Your task to perform on an android device: Clear the shopping cart on newegg. Add "logitech g502" to the cart on newegg, then select checkout. Image 0: 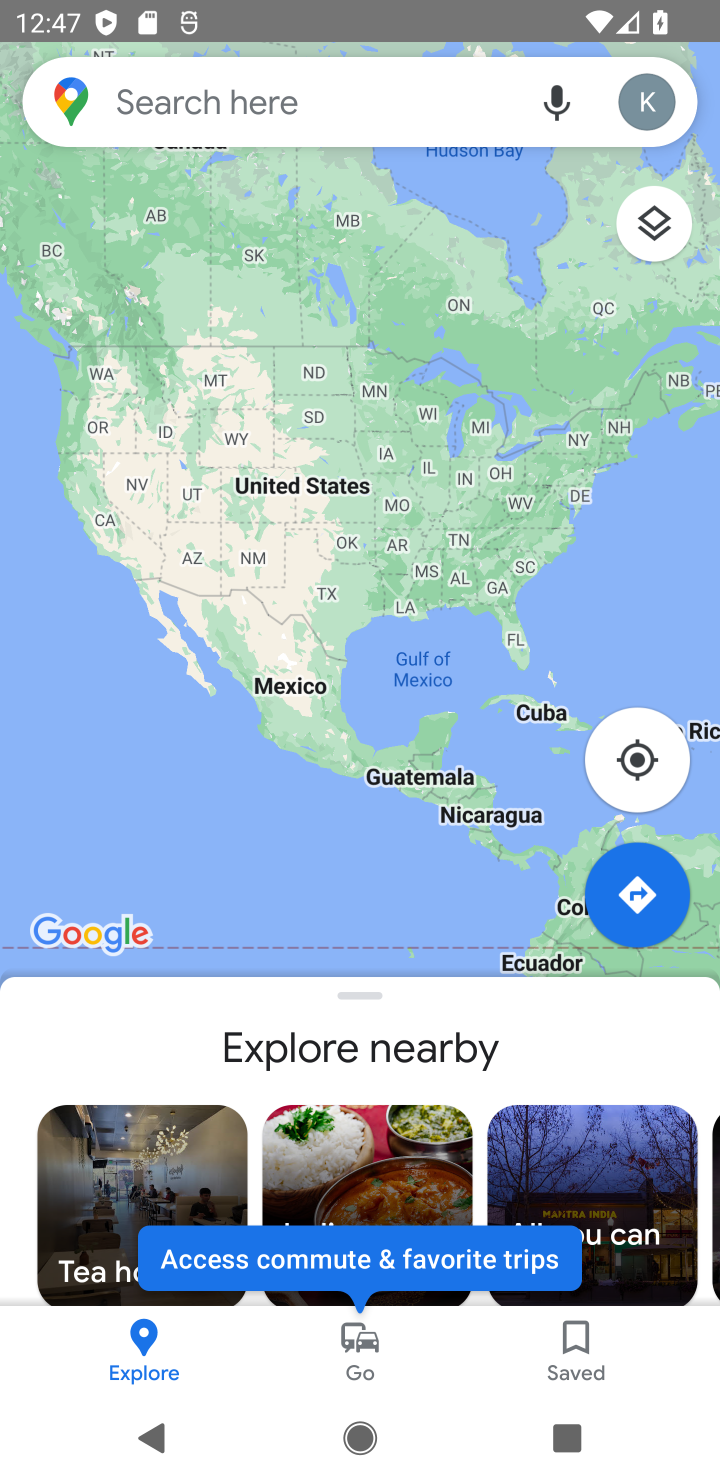
Step 0: press home button
Your task to perform on an android device: Clear the shopping cart on newegg. Add "logitech g502" to the cart on newegg, then select checkout. Image 1: 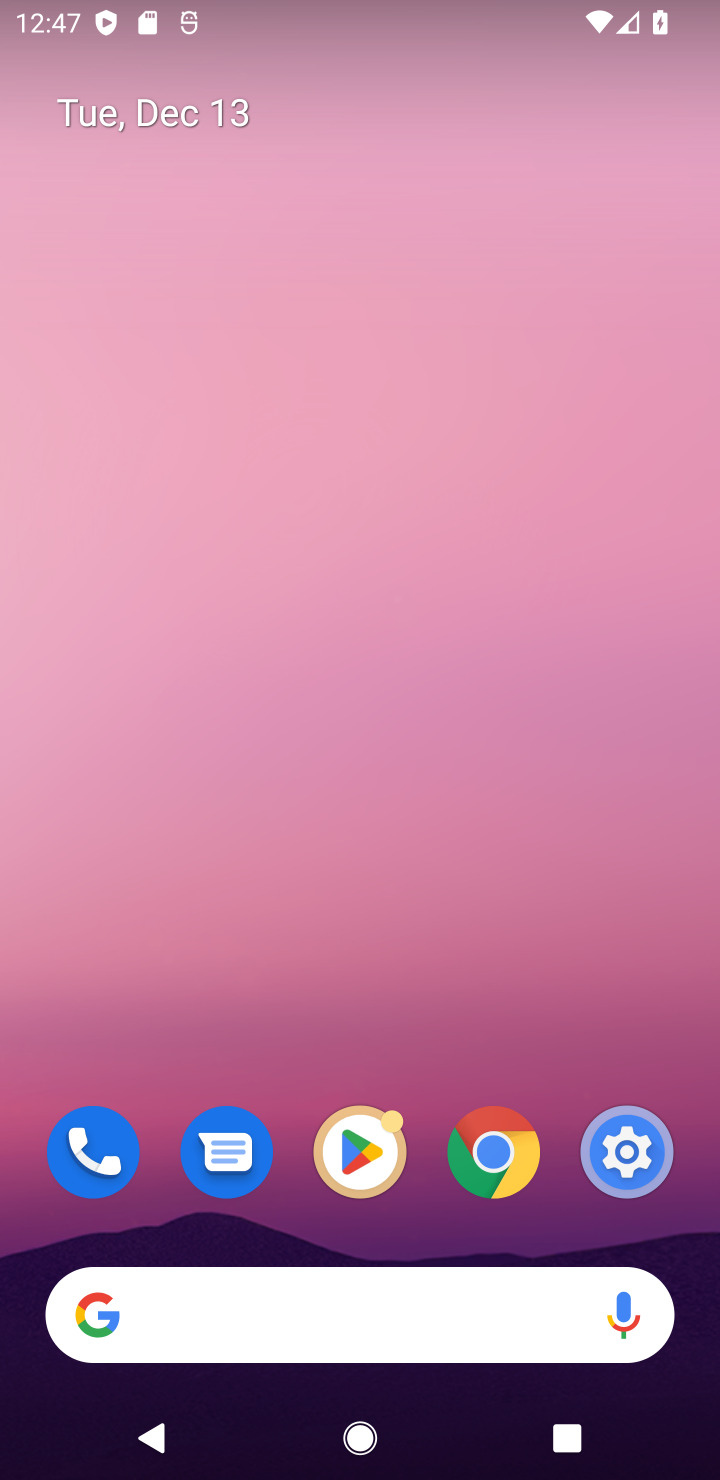
Step 1: drag from (314, 1210) to (314, 395)
Your task to perform on an android device: Clear the shopping cart on newegg. Add "logitech g502" to the cart on newegg, then select checkout. Image 2: 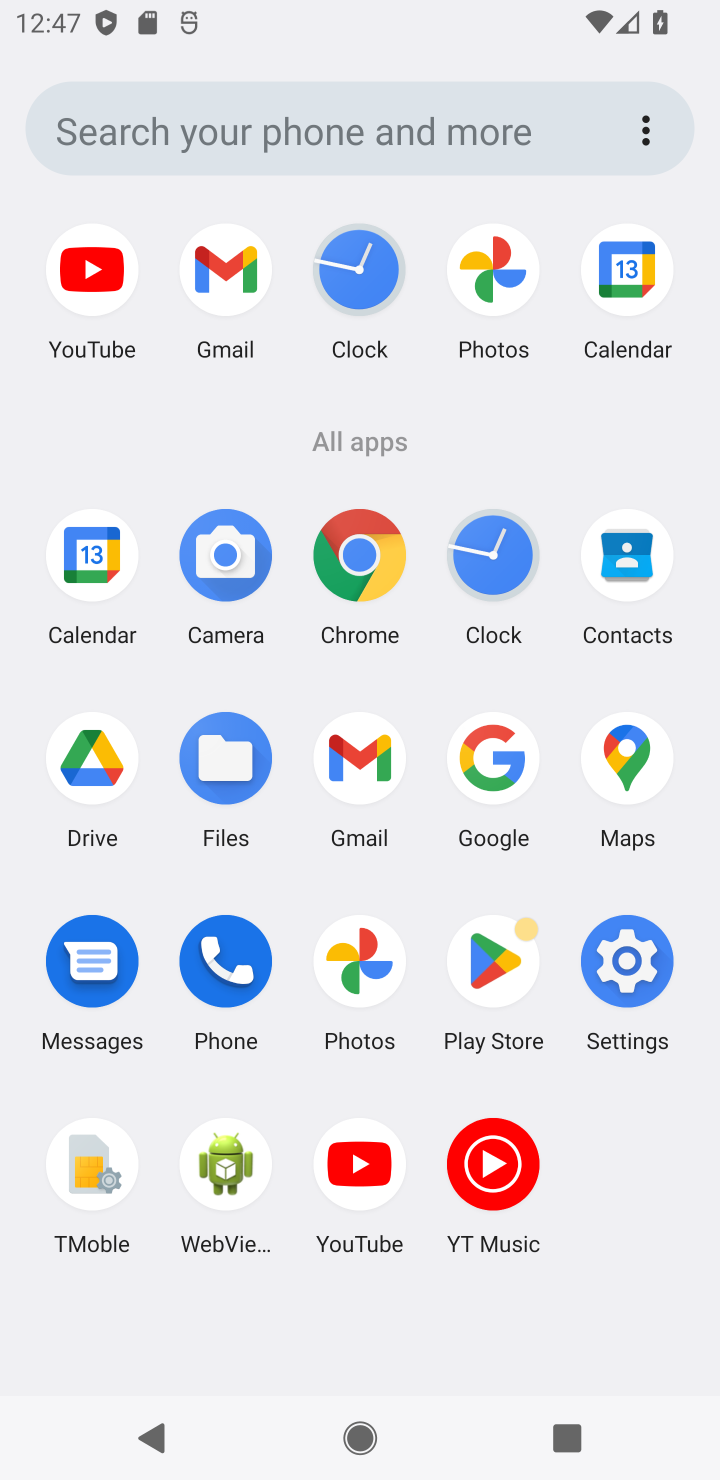
Step 2: click (513, 764)
Your task to perform on an android device: Clear the shopping cart on newegg. Add "logitech g502" to the cart on newegg, then select checkout. Image 3: 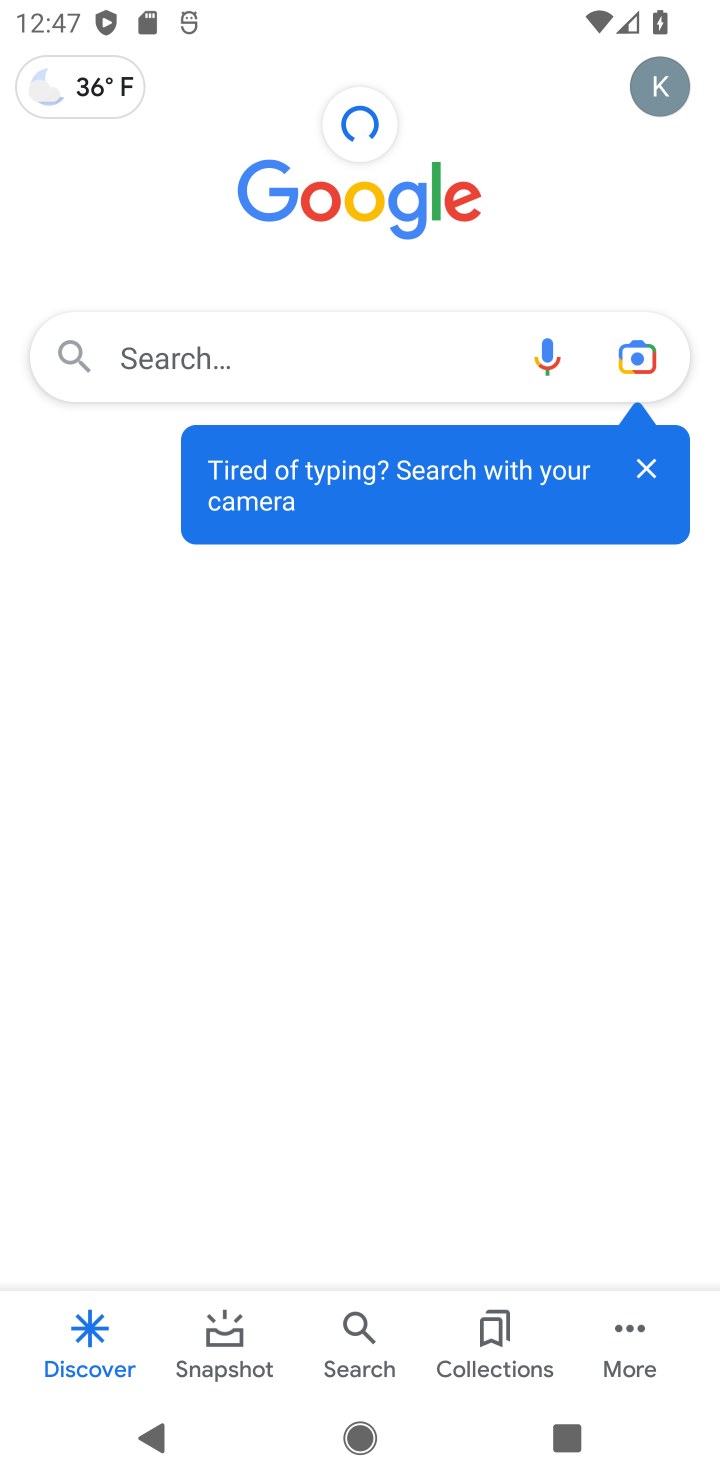
Step 3: click (142, 377)
Your task to perform on an android device: Clear the shopping cart on newegg. Add "logitech g502" to the cart on newegg, then select checkout. Image 4: 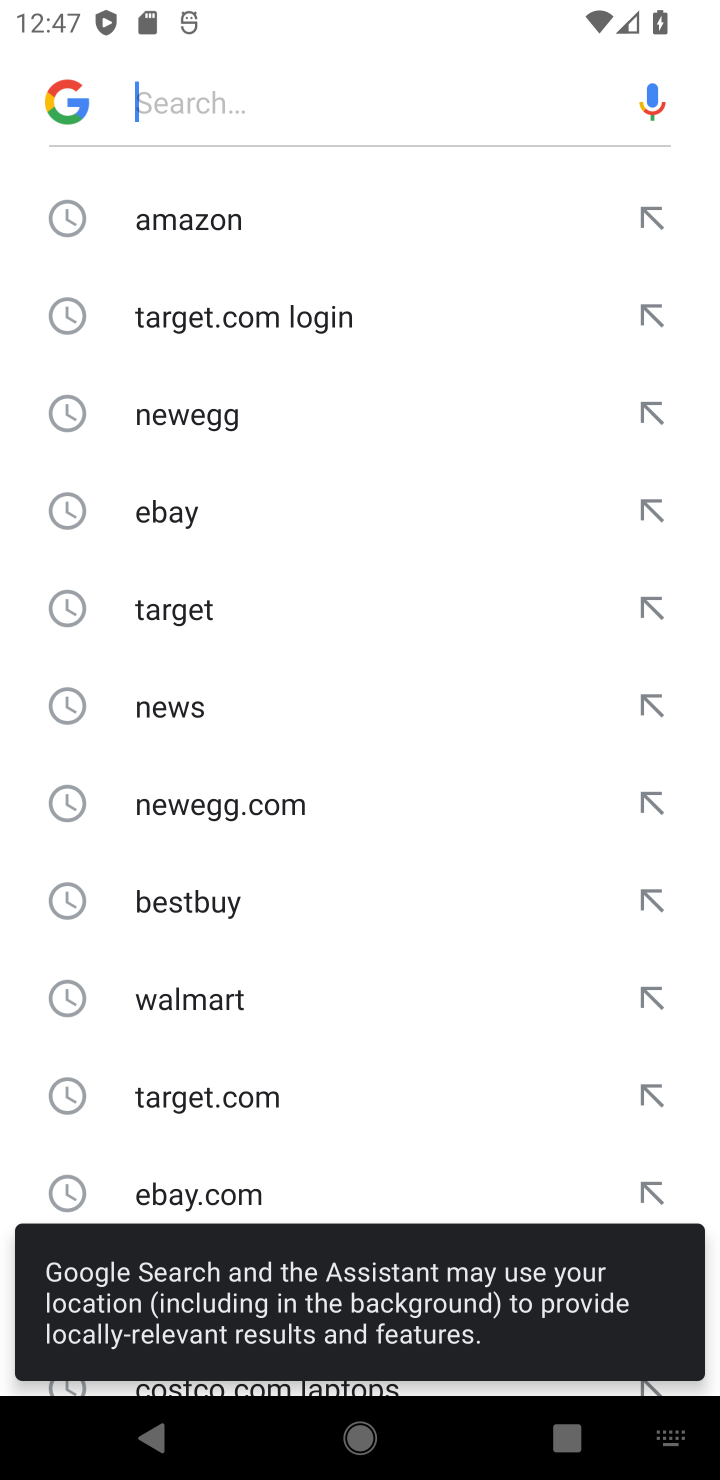
Step 4: click (192, 415)
Your task to perform on an android device: Clear the shopping cart on newegg. Add "logitech g502" to the cart on newegg, then select checkout. Image 5: 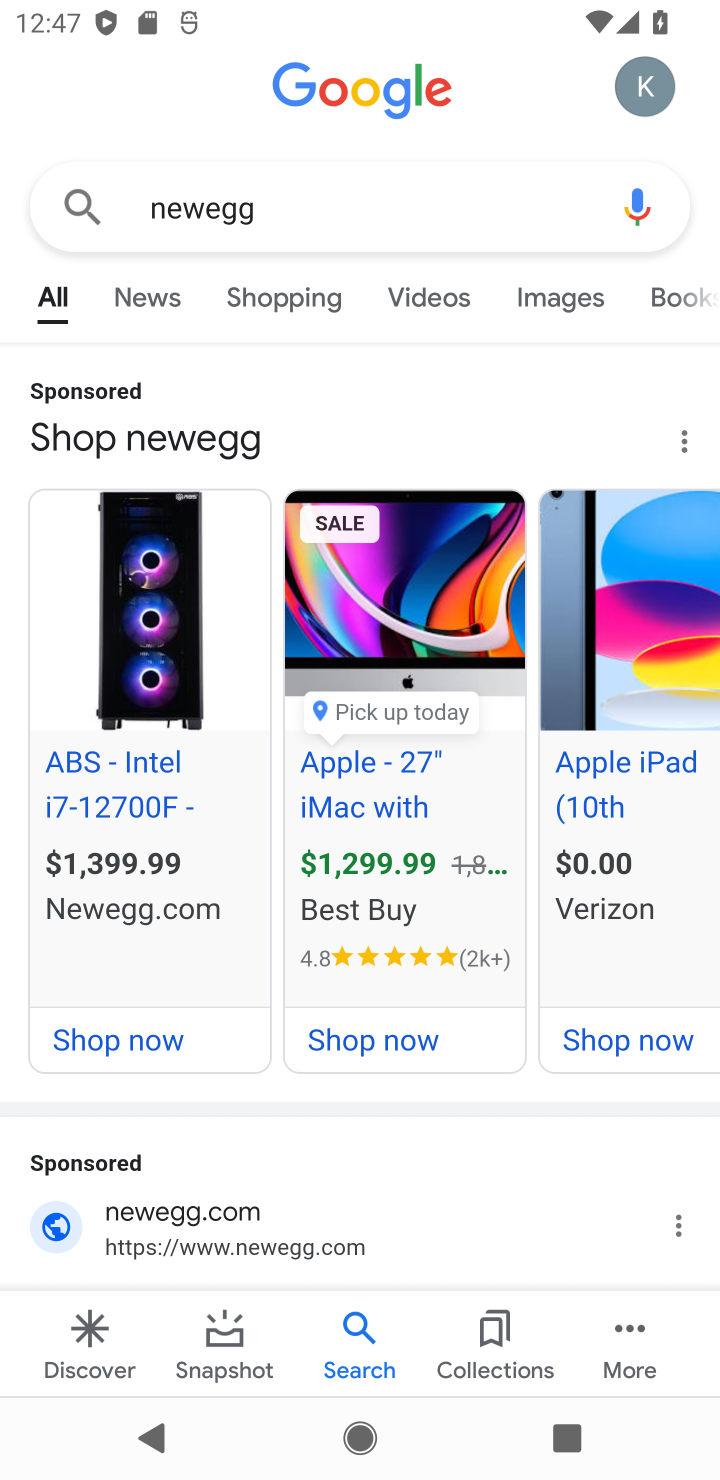
Step 5: drag from (249, 1166) to (244, 354)
Your task to perform on an android device: Clear the shopping cart on newegg. Add "logitech g502" to the cart on newegg, then select checkout. Image 6: 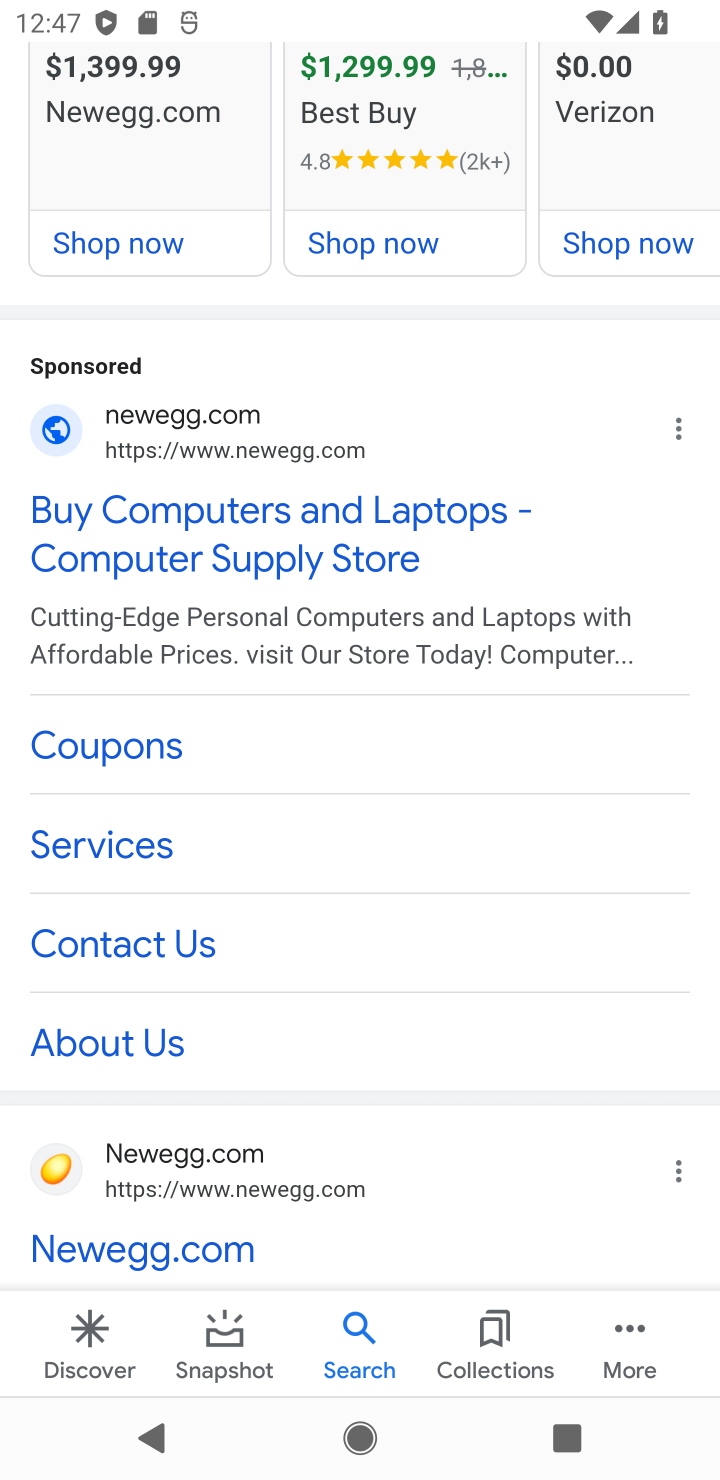
Step 6: click (167, 527)
Your task to perform on an android device: Clear the shopping cart on newegg. Add "logitech g502" to the cart on newegg, then select checkout. Image 7: 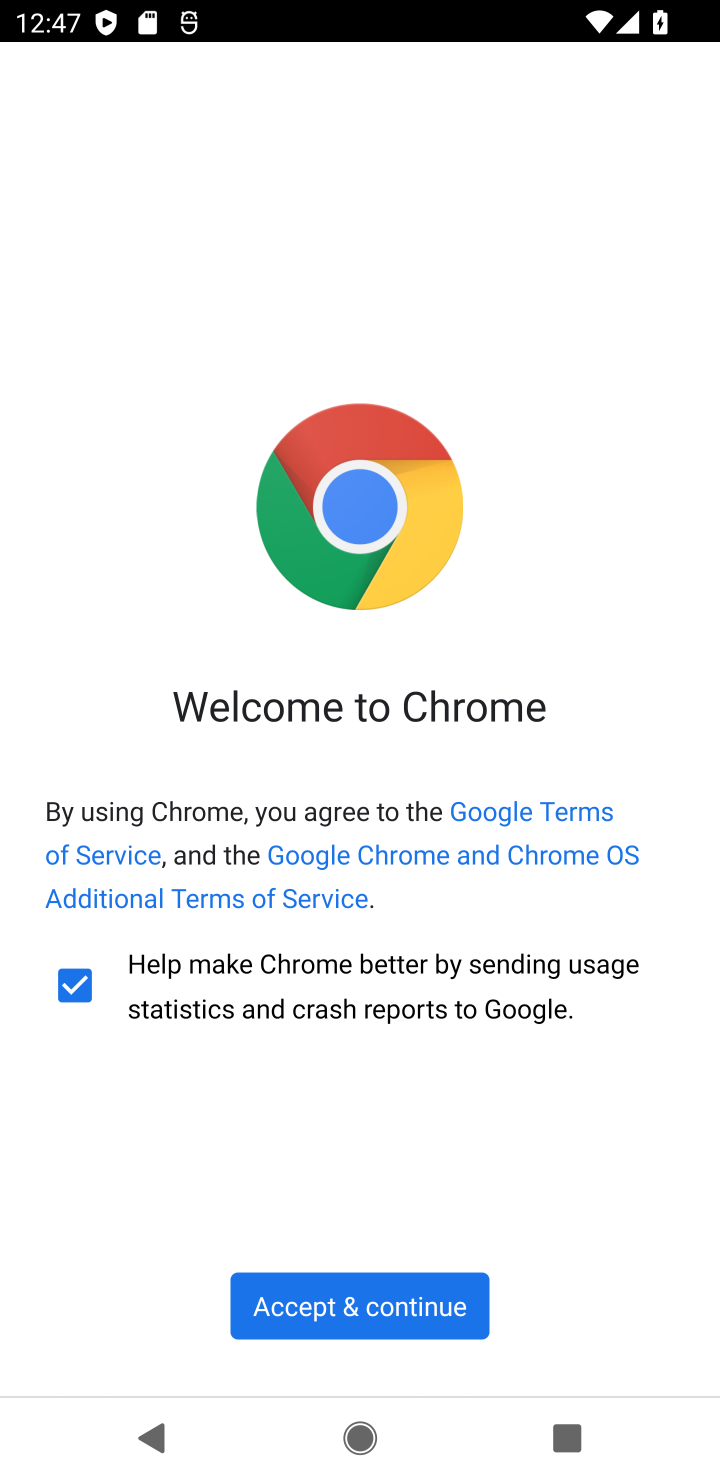
Step 7: click (299, 1319)
Your task to perform on an android device: Clear the shopping cart on newegg. Add "logitech g502" to the cart on newegg, then select checkout. Image 8: 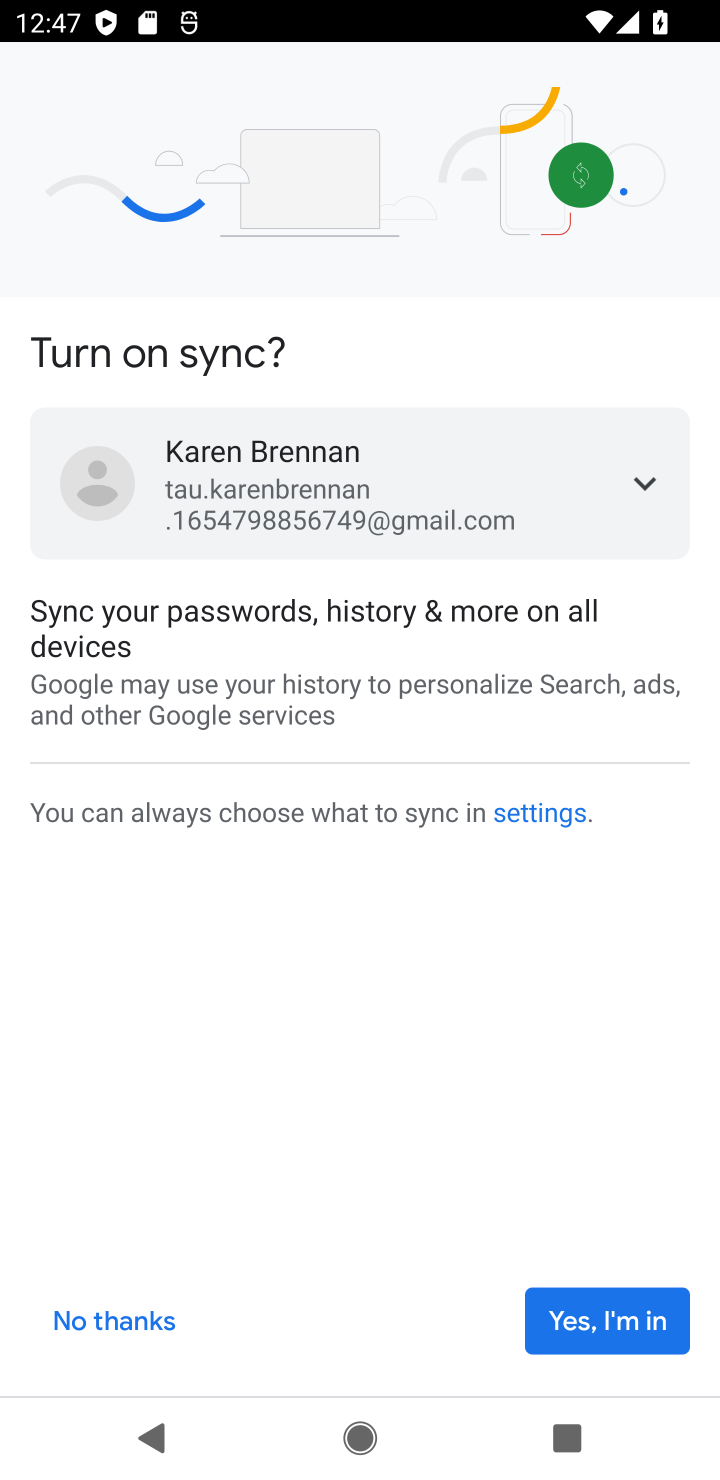
Step 8: click (610, 1316)
Your task to perform on an android device: Clear the shopping cart on newegg. Add "logitech g502" to the cart on newegg, then select checkout. Image 9: 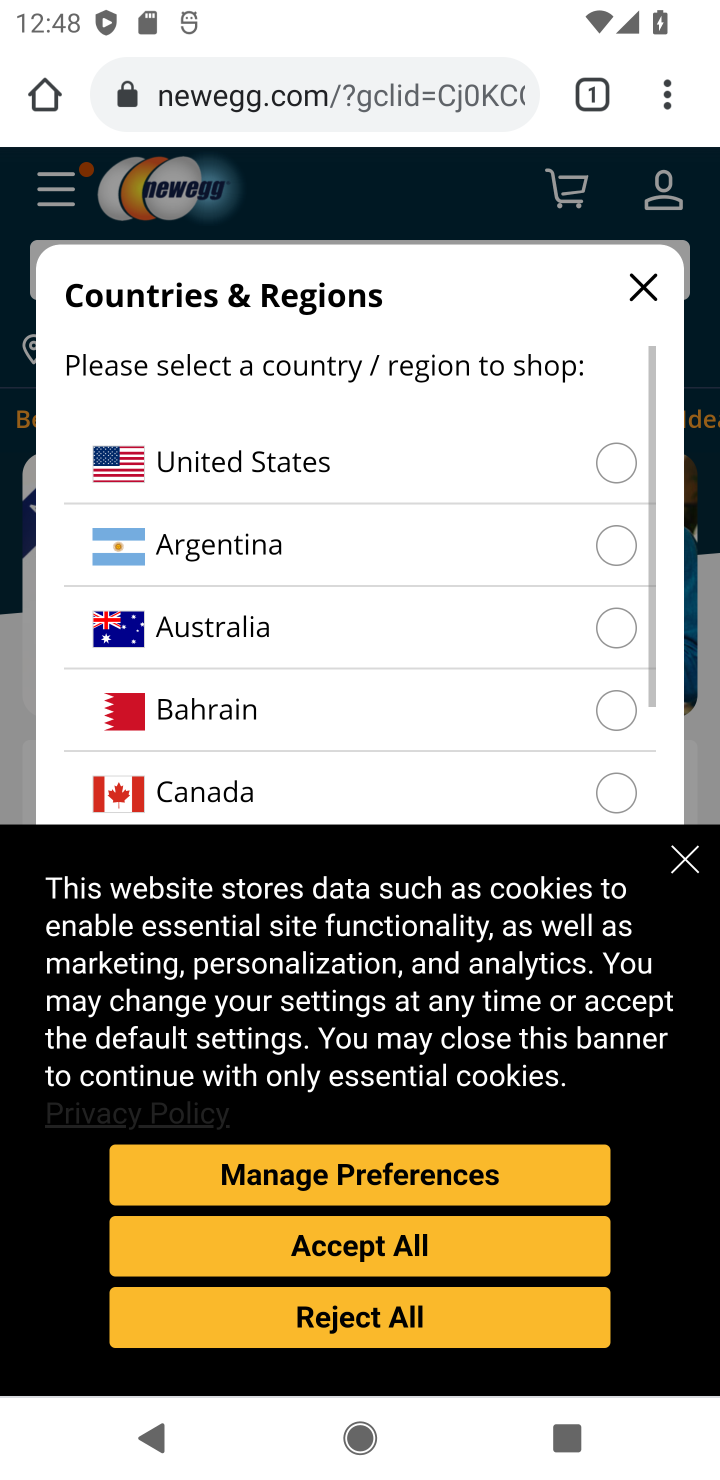
Step 9: click (247, 269)
Your task to perform on an android device: Clear the shopping cart on newegg. Add "logitech g502" to the cart on newegg, then select checkout. Image 10: 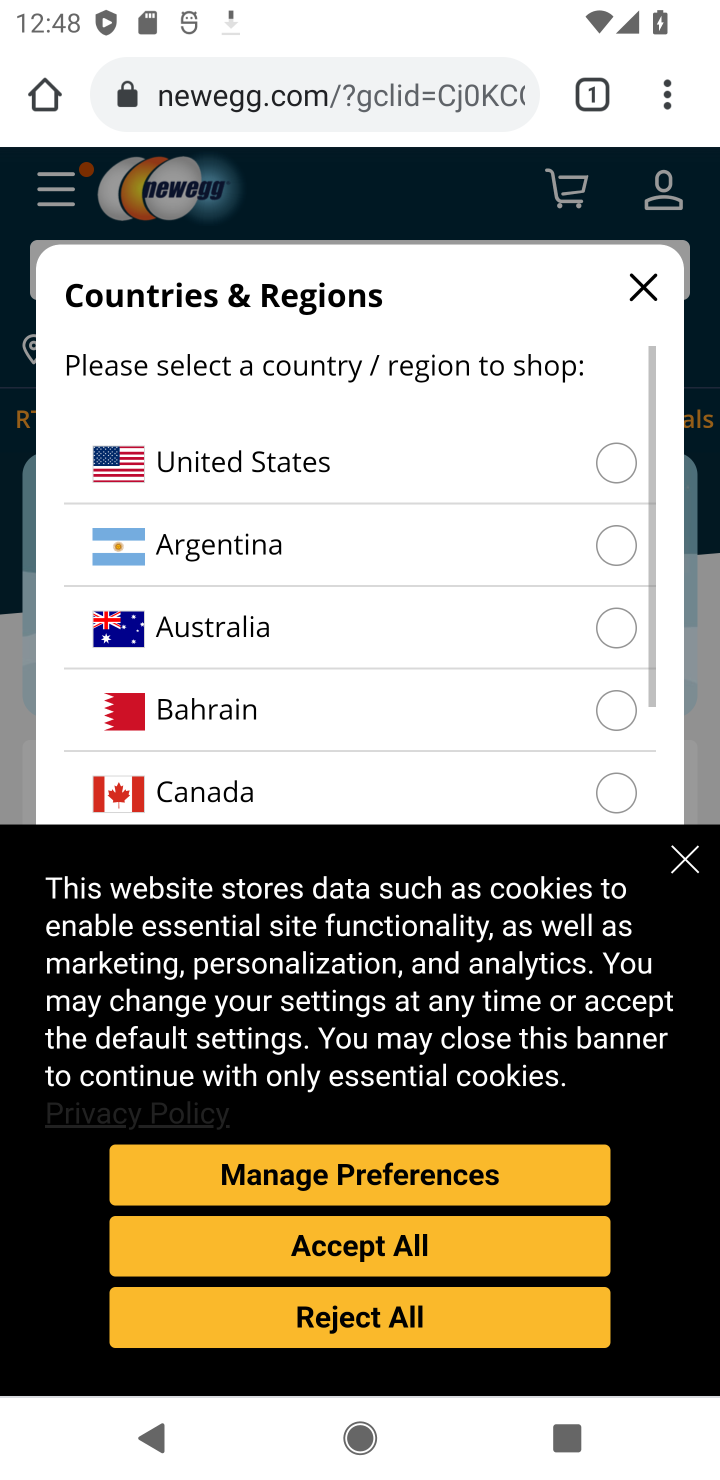
Step 10: click (646, 286)
Your task to perform on an android device: Clear the shopping cart on newegg. Add "logitech g502" to the cart on newegg, then select checkout. Image 11: 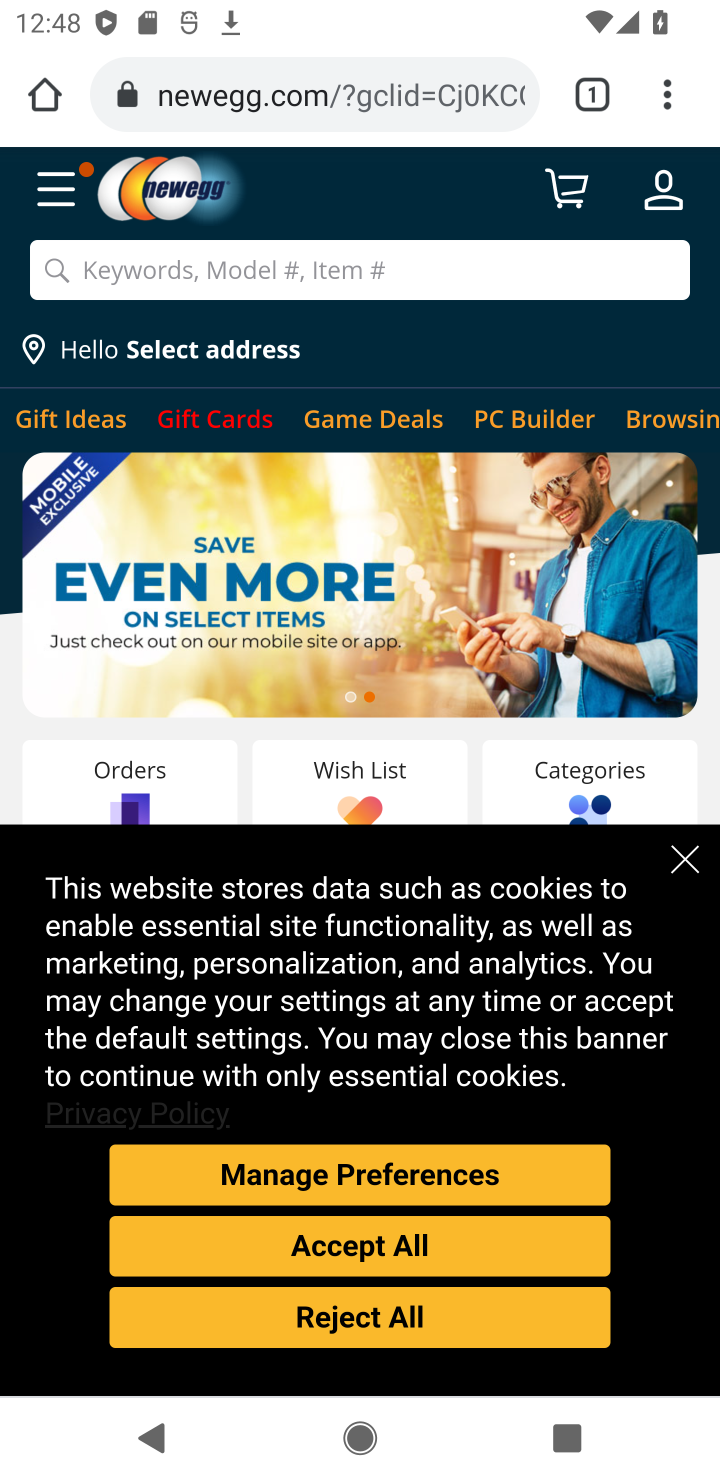
Step 11: click (138, 267)
Your task to perform on an android device: Clear the shopping cart on newegg. Add "logitech g502" to the cart on newegg, then select checkout. Image 12: 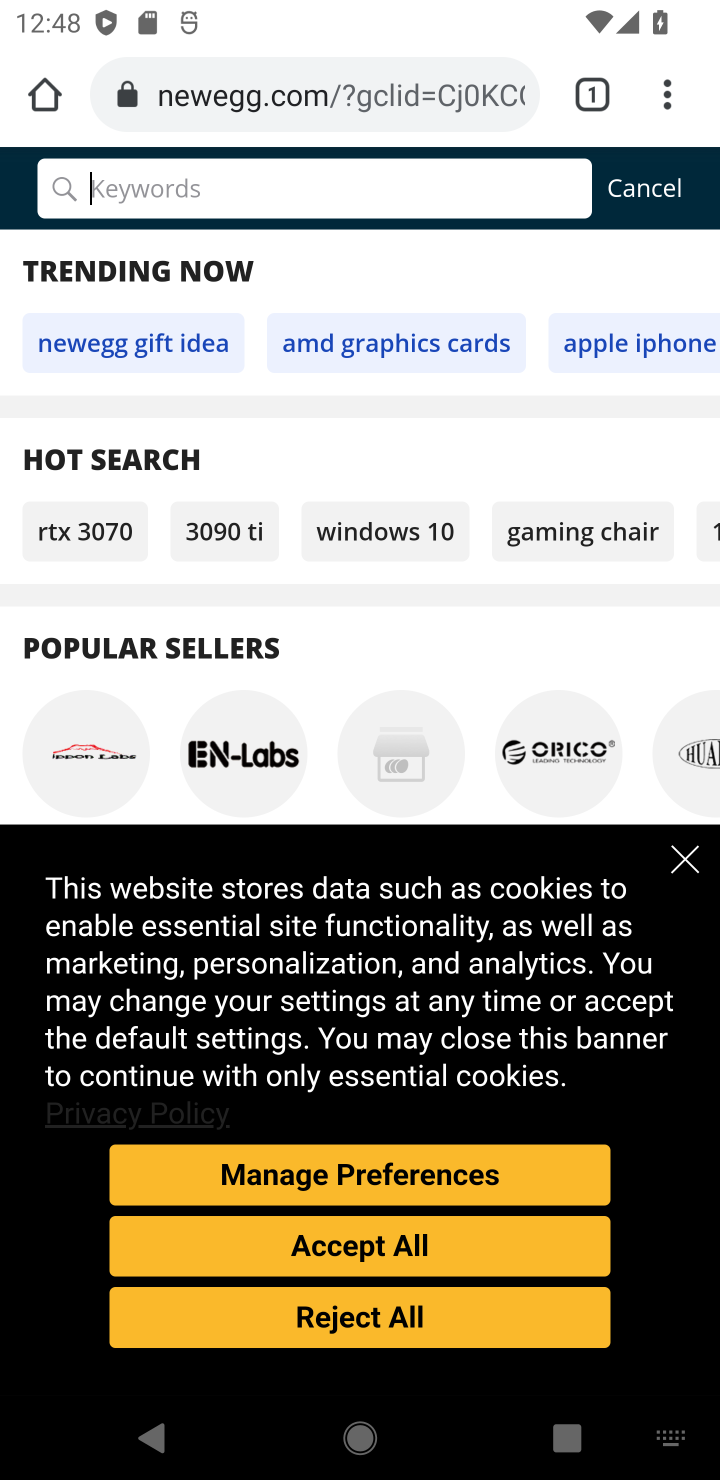
Step 12: type "logitech g502"
Your task to perform on an android device: Clear the shopping cart on newegg. Add "logitech g502" to the cart on newegg, then select checkout. Image 13: 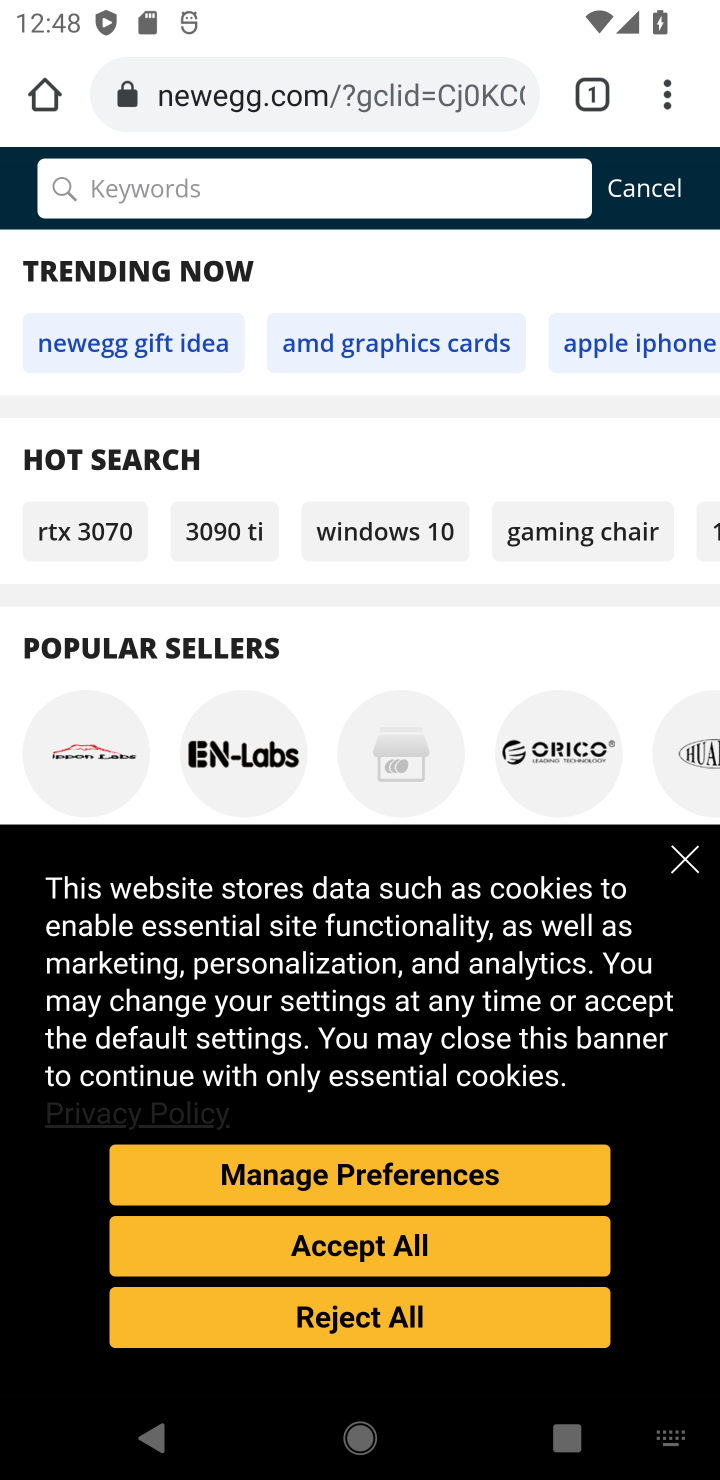
Step 13: click (58, 183)
Your task to perform on an android device: Clear the shopping cart on newegg. Add "logitech g502" to the cart on newegg, then select checkout. Image 14: 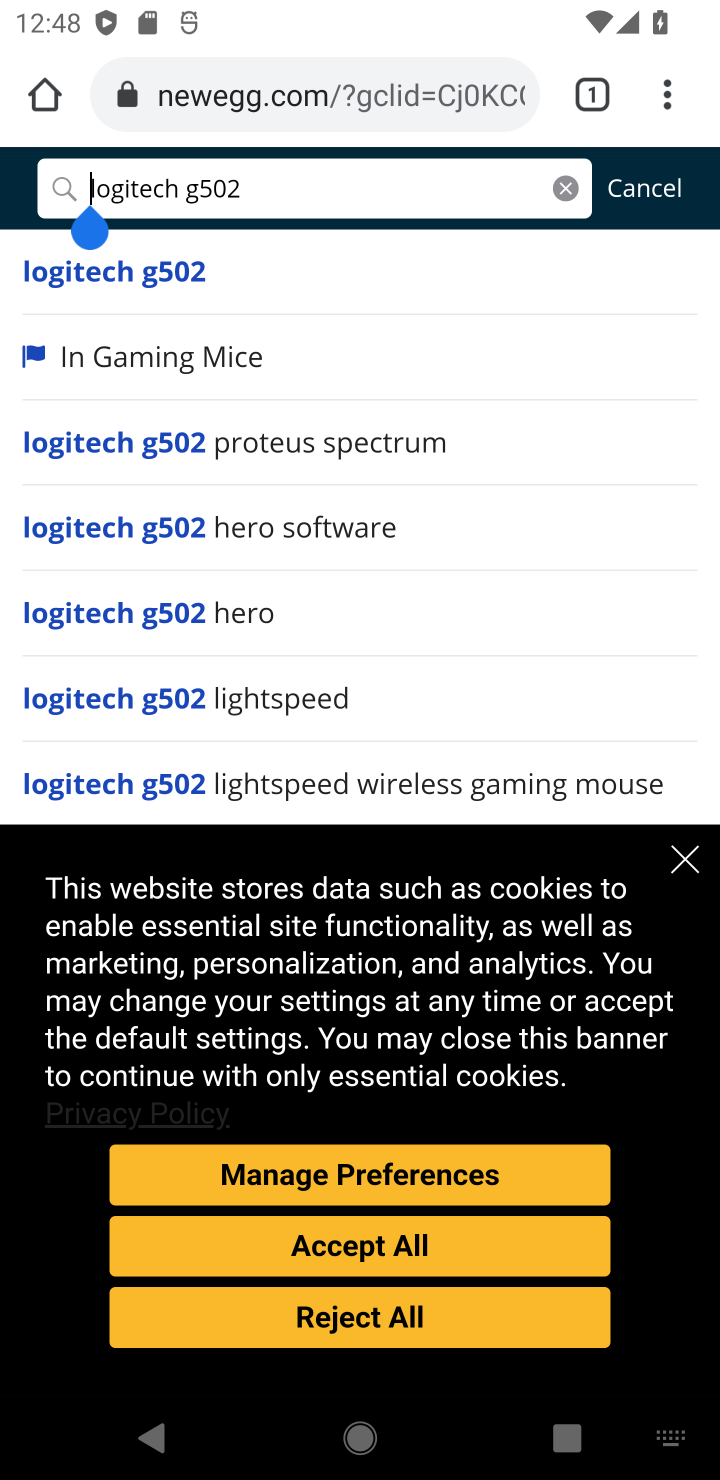
Step 14: click (178, 280)
Your task to perform on an android device: Clear the shopping cart on newegg. Add "logitech g502" to the cart on newegg, then select checkout. Image 15: 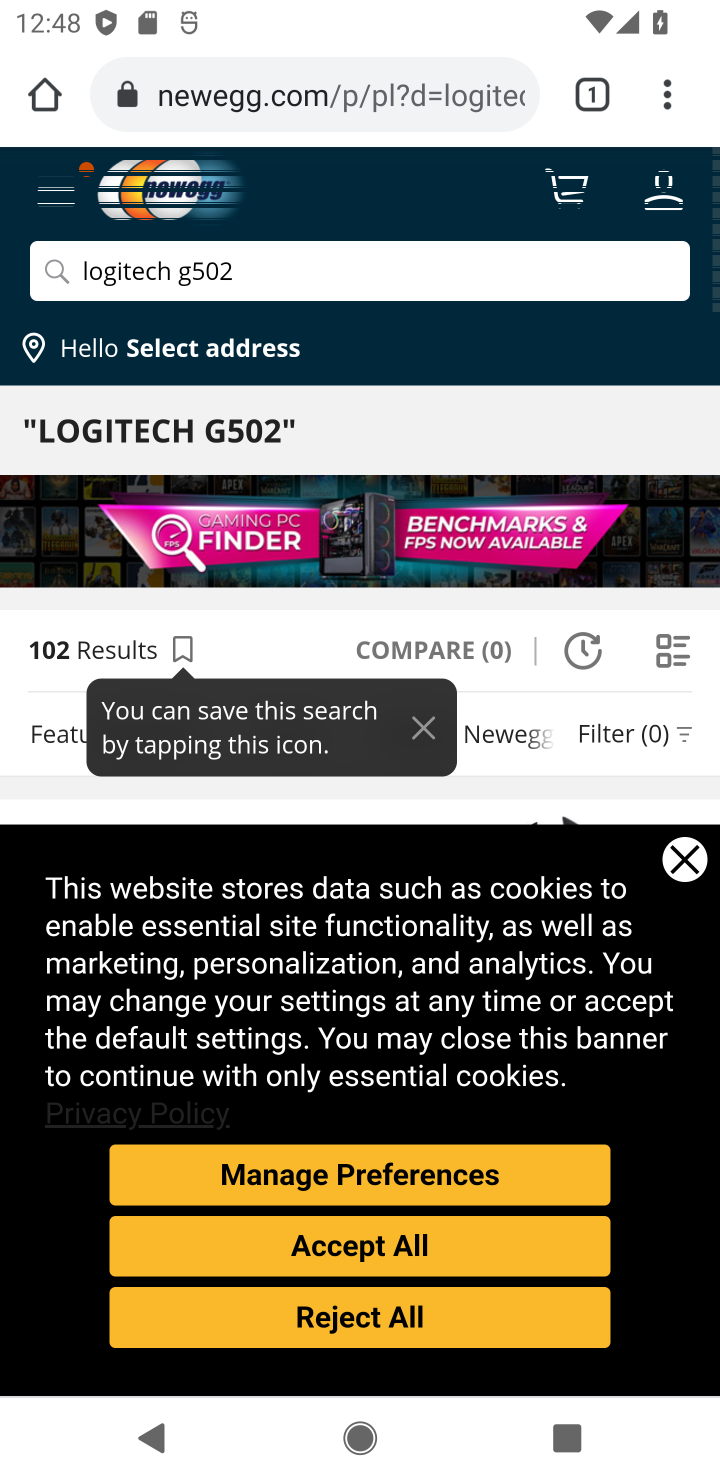
Step 15: click (689, 859)
Your task to perform on an android device: Clear the shopping cart on newegg. Add "logitech g502" to the cart on newegg, then select checkout. Image 16: 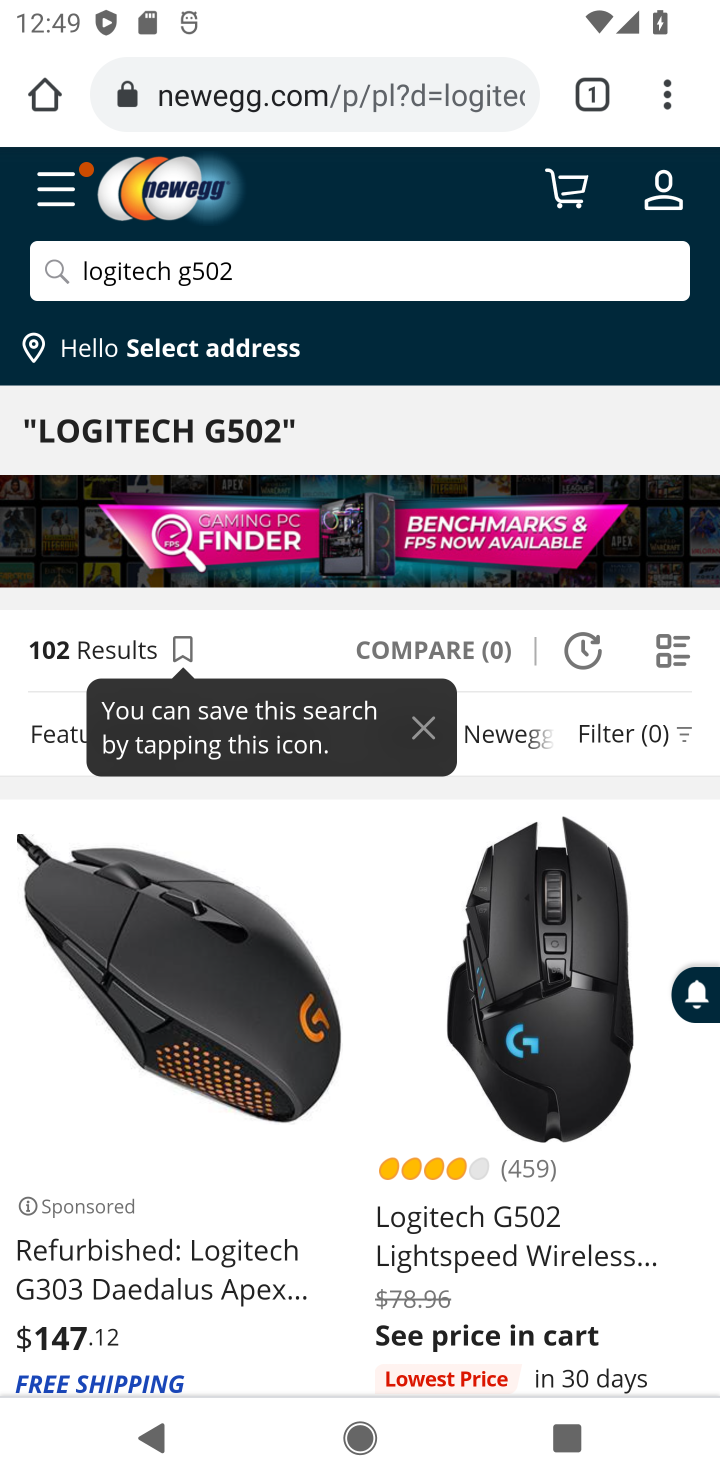
Step 16: drag from (413, 1164) to (413, 767)
Your task to perform on an android device: Clear the shopping cart on newegg. Add "logitech g502" to the cart on newegg, then select checkout. Image 17: 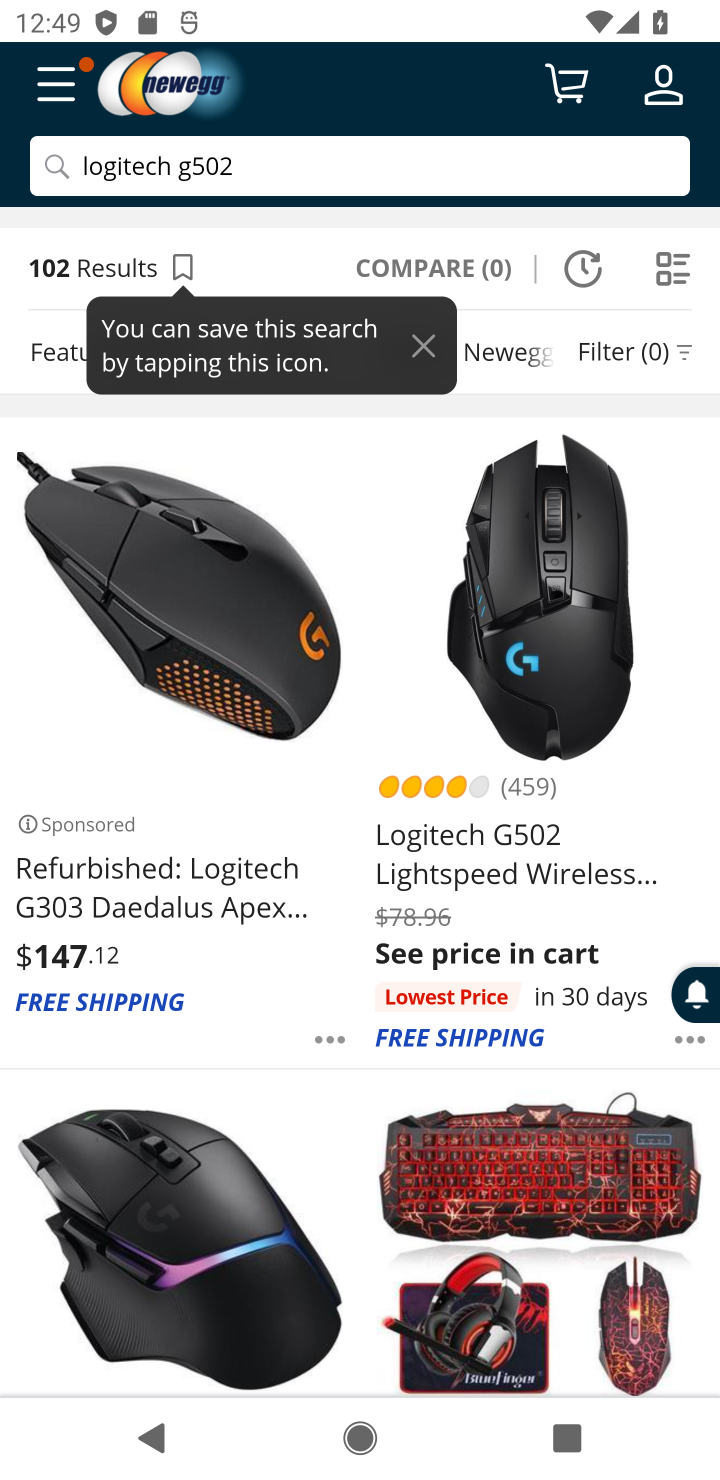
Step 17: click (106, 749)
Your task to perform on an android device: Clear the shopping cart on newegg. Add "logitech g502" to the cart on newegg, then select checkout. Image 18: 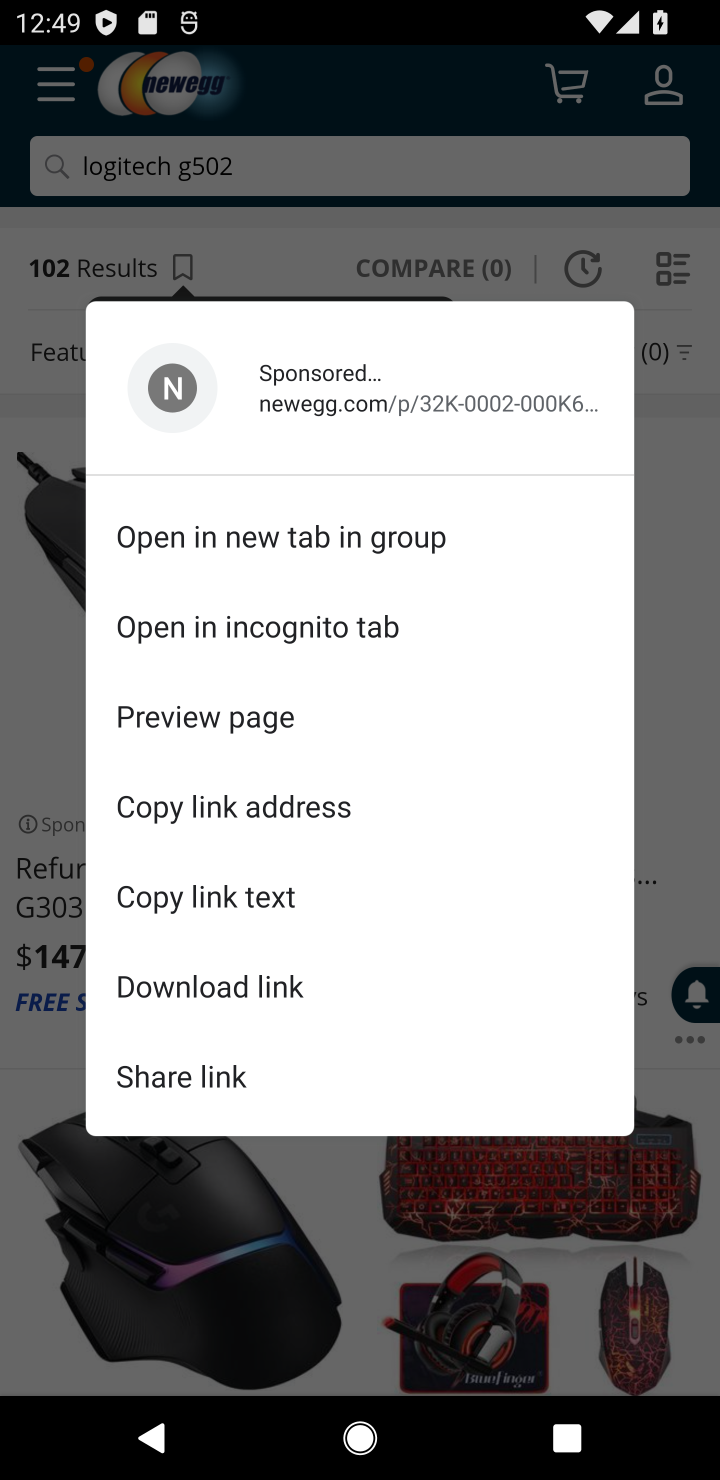
Step 18: click (37, 648)
Your task to perform on an android device: Clear the shopping cart on newegg. Add "logitech g502" to the cart on newegg, then select checkout. Image 19: 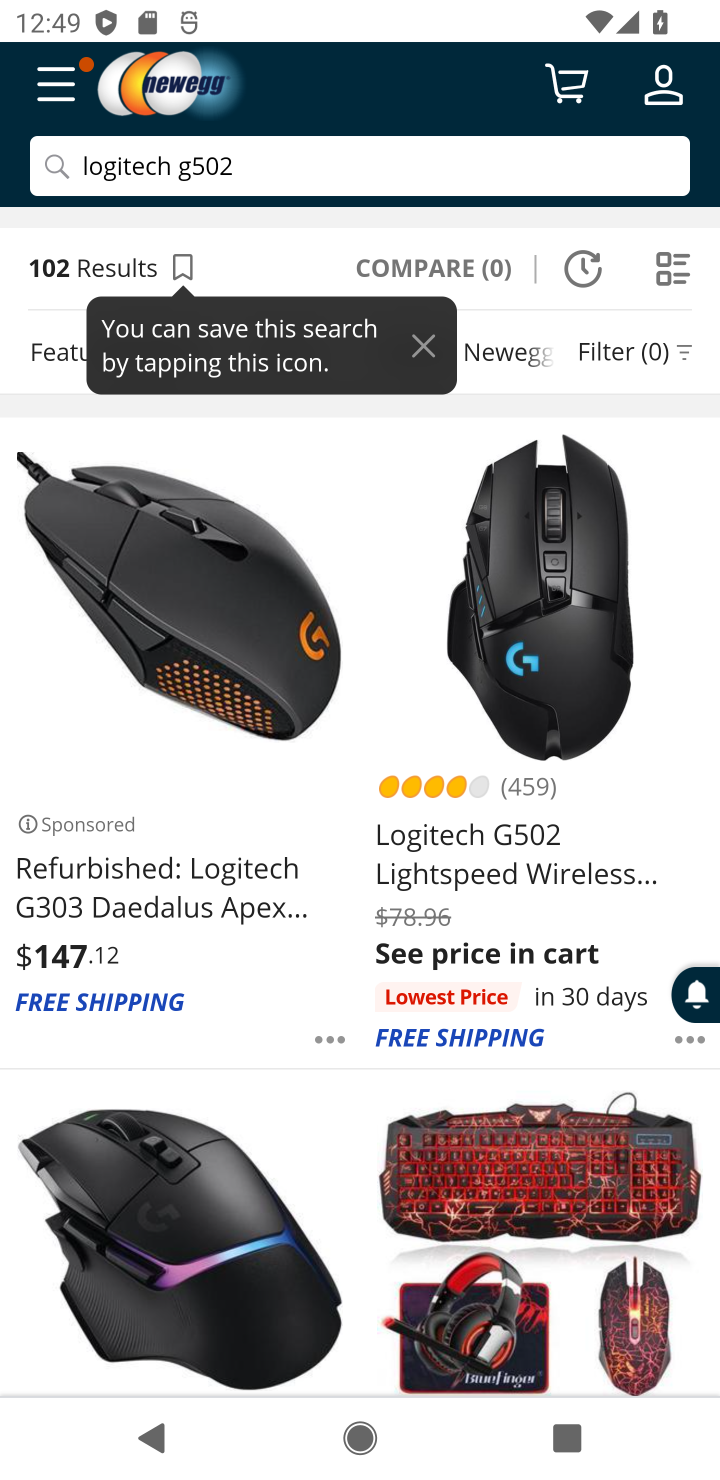
Step 19: click (110, 865)
Your task to perform on an android device: Clear the shopping cart on newegg. Add "logitech g502" to the cart on newegg, then select checkout. Image 20: 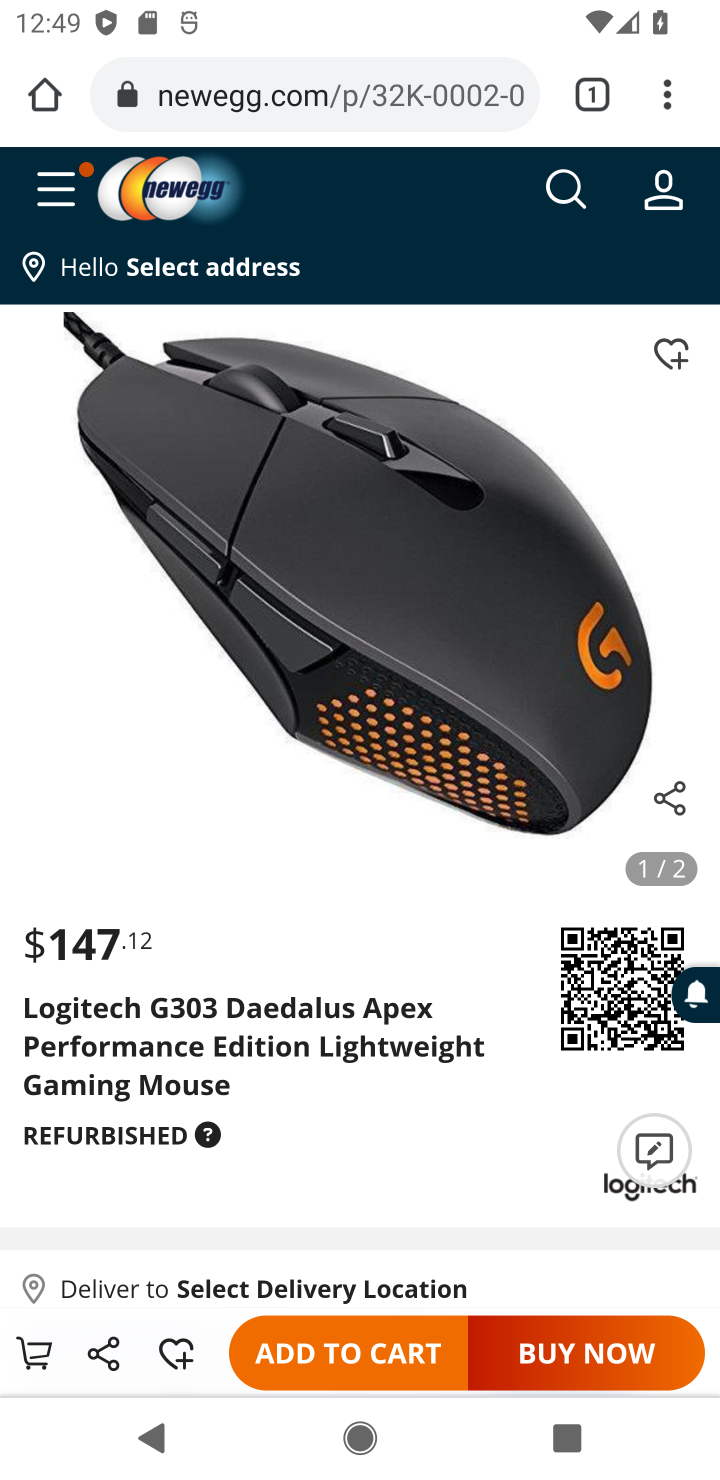
Step 20: click (286, 1358)
Your task to perform on an android device: Clear the shopping cart on newegg. Add "logitech g502" to the cart on newegg, then select checkout. Image 21: 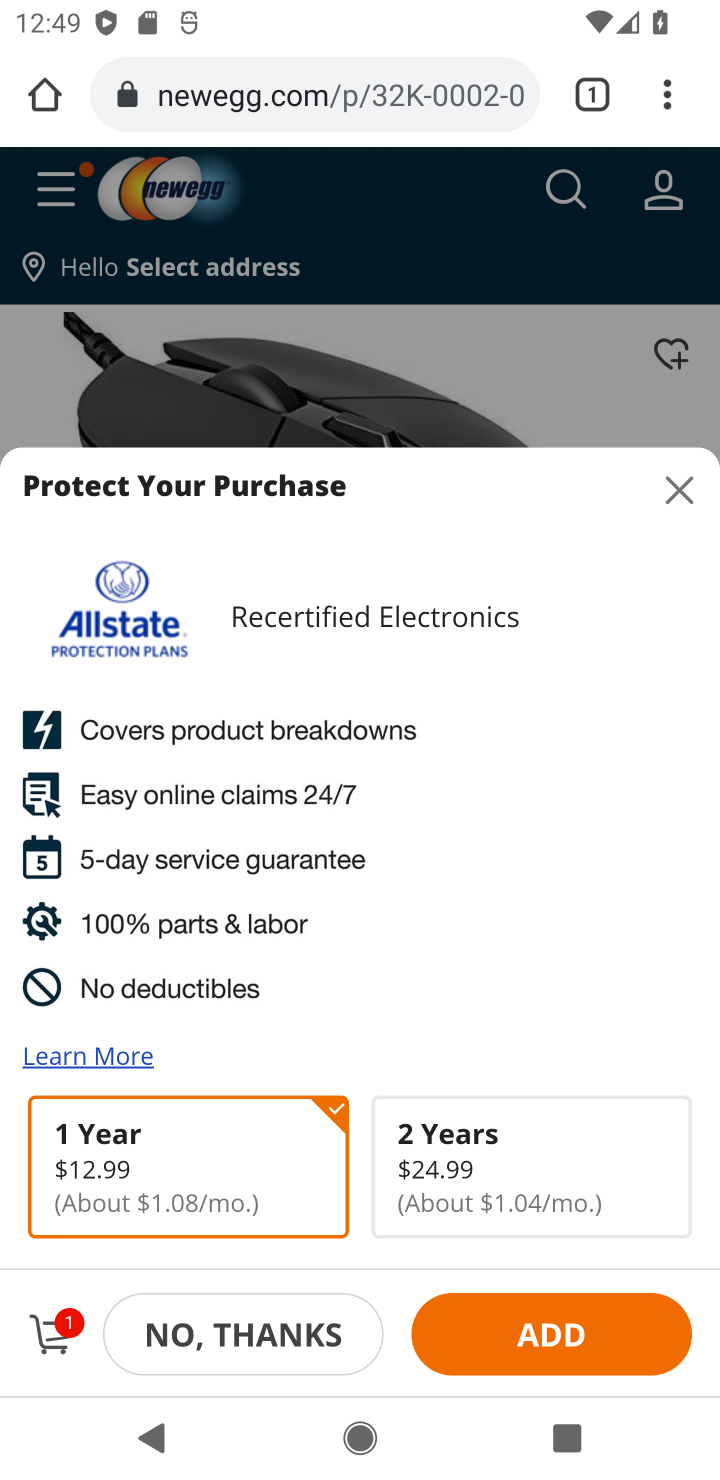
Step 21: click (57, 1334)
Your task to perform on an android device: Clear the shopping cart on newegg. Add "logitech g502" to the cart on newegg, then select checkout. Image 22: 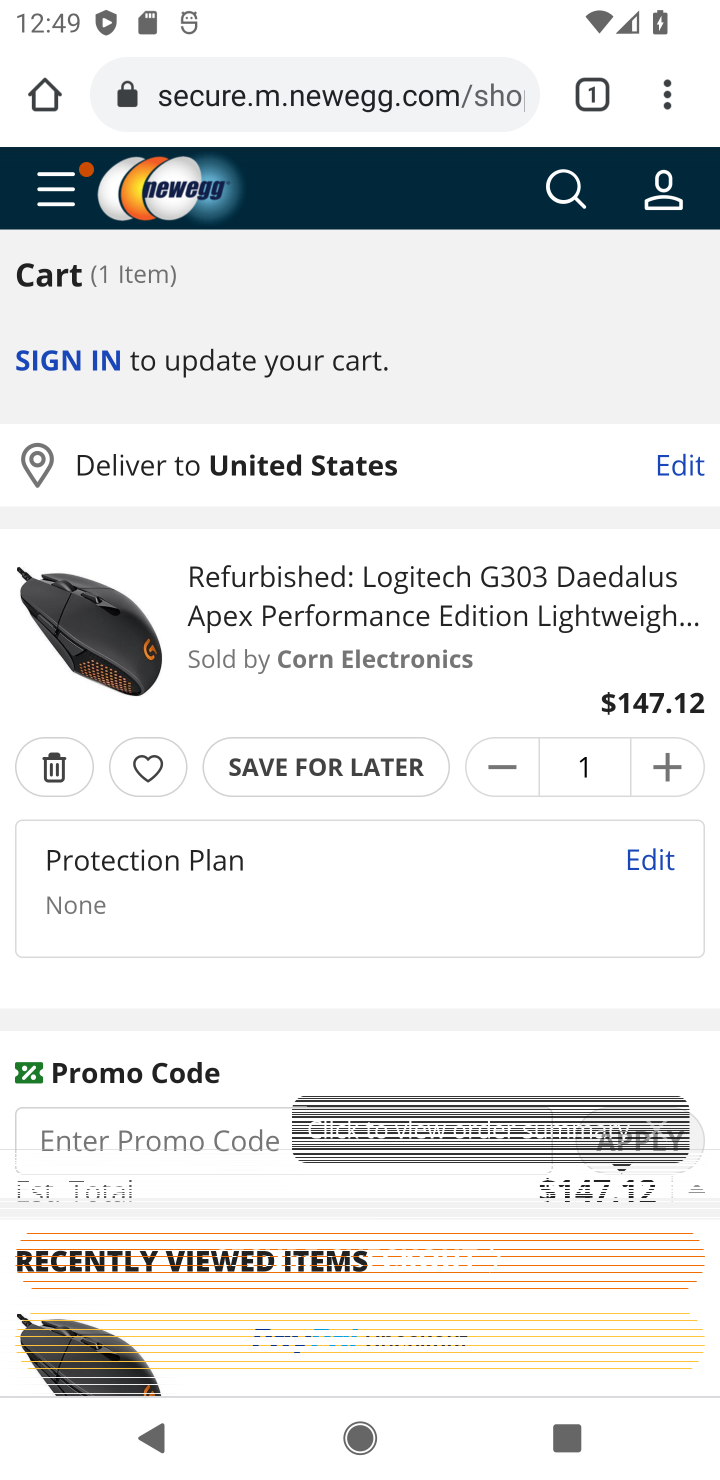
Step 22: drag from (593, 1252) to (593, 607)
Your task to perform on an android device: Clear the shopping cart on newegg. Add "logitech g502" to the cart on newegg, then select checkout. Image 23: 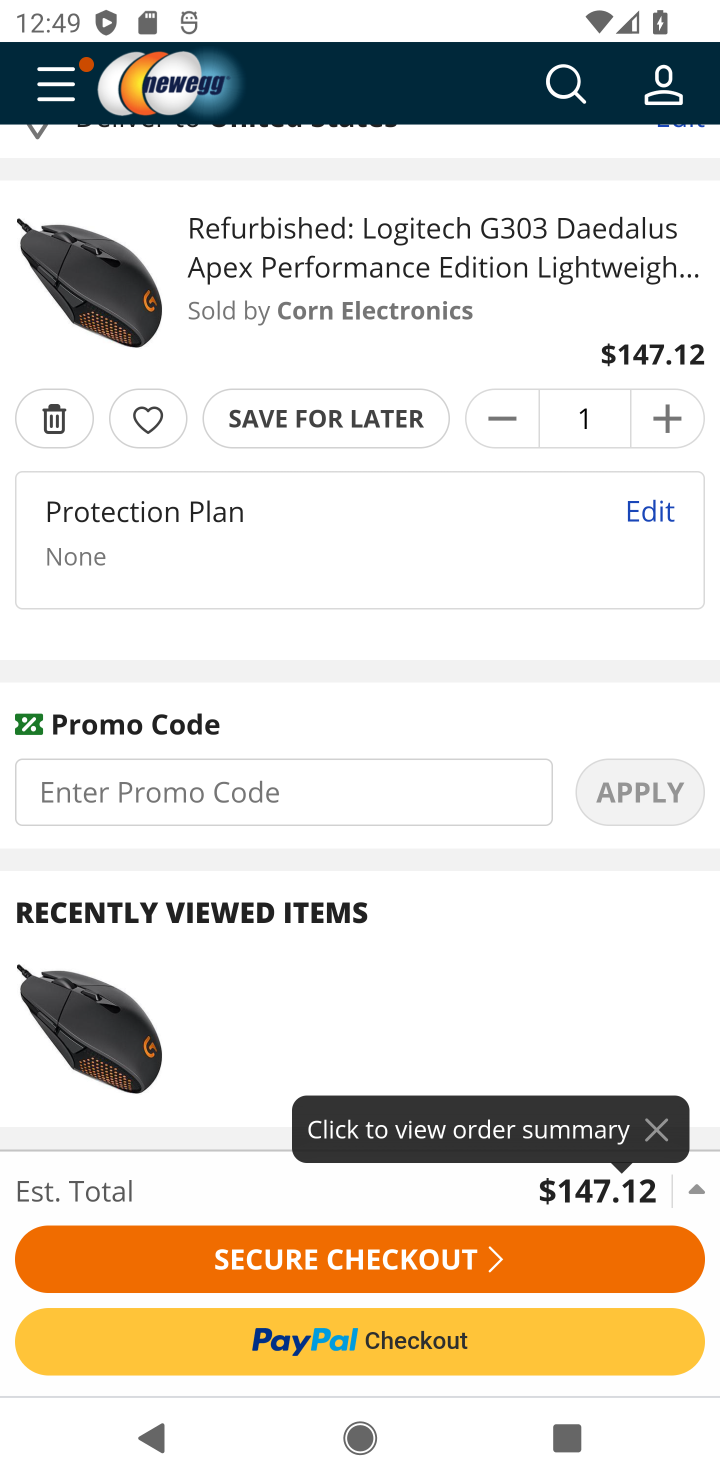
Step 23: click (336, 1266)
Your task to perform on an android device: Clear the shopping cart on newegg. Add "logitech g502" to the cart on newegg, then select checkout. Image 24: 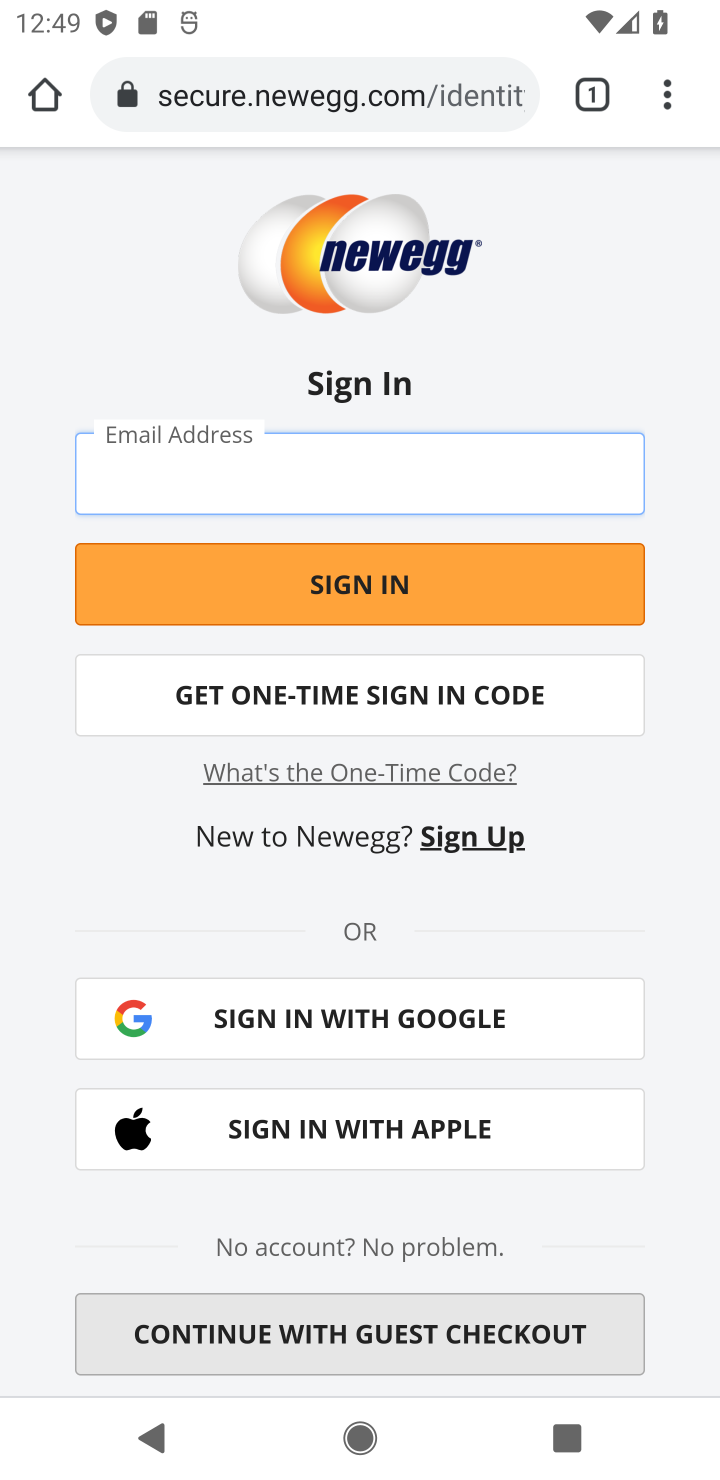
Step 24: task complete